Your task to perform on an android device: turn on javascript in the chrome app Image 0: 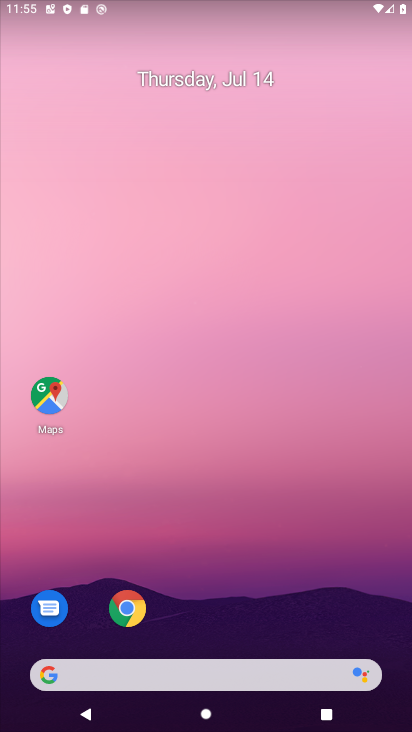
Step 0: click (127, 609)
Your task to perform on an android device: turn on javascript in the chrome app Image 1: 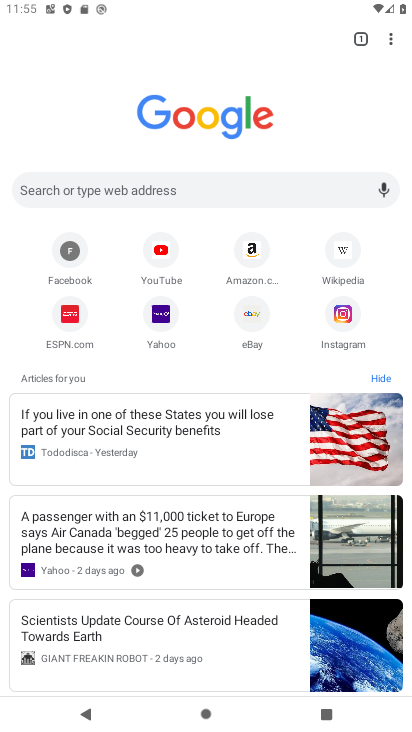
Step 1: click (390, 40)
Your task to perform on an android device: turn on javascript in the chrome app Image 2: 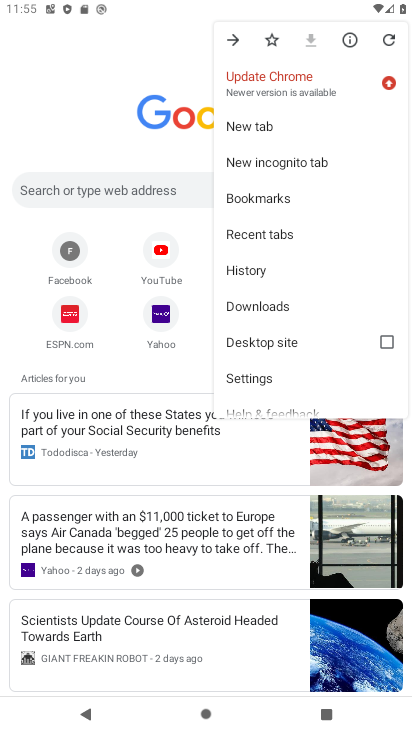
Step 2: click (250, 381)
Your task to perform on an android device: turn on javascript in the chrome app Image 3: 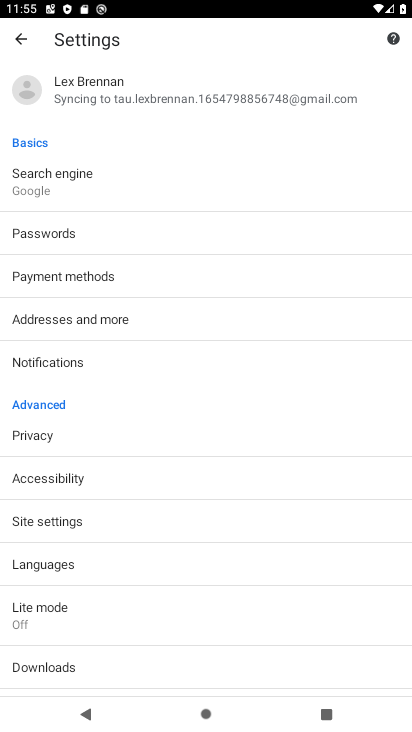
Step 3: click (58, 520)
Your task to perform on an android device: turn on javascript in the chrome app Image 4: 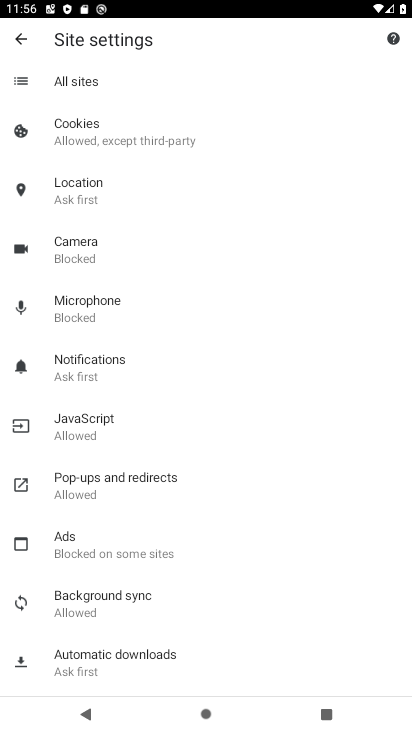
Step 4: click (97, 428)
Your task to perform on an android device: turn on javascript in the chrome app Image 5: 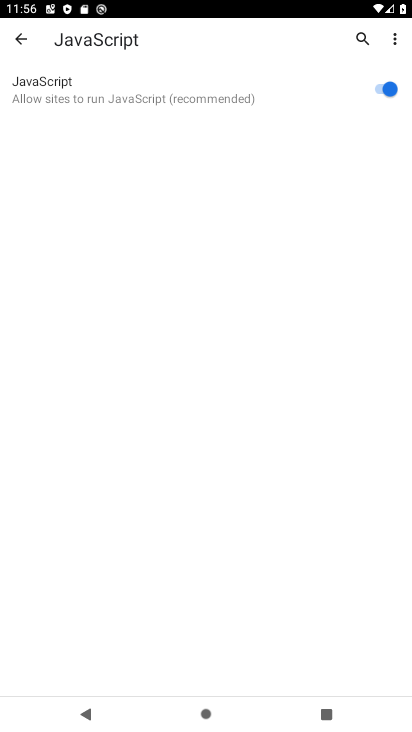
Step 5: task complete